Your task to perform on an android device: Open Chrome and go to the settings page Image 0: 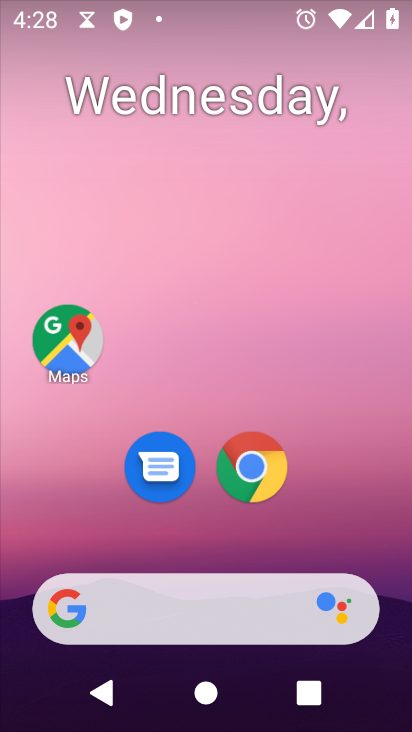
Step 0: drag from (354, 523) to (350, 97)
Your task to perform on an android device: Open Chrome and go to the settings page Image 1: 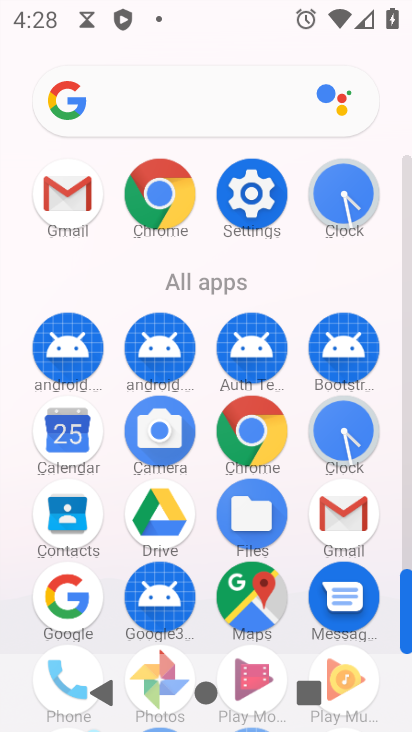
Step 1: click (179, 200)
Your task to perform on an android device: Open Chrome and go to the settings page Image 2: 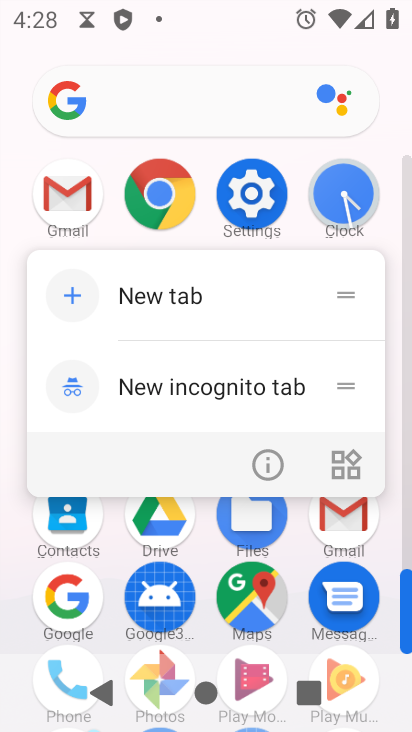
Step 2: click (179, 200)
Your task to perform on an android device: Open Chrome and go to the settings page Image 3: 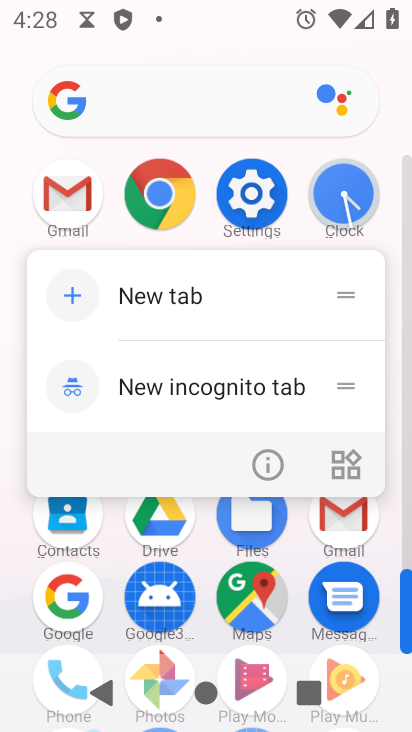
Step 3: click (179, 199)
Your task to perform on an android device: Open Chrome and go to the settings page Image 4: 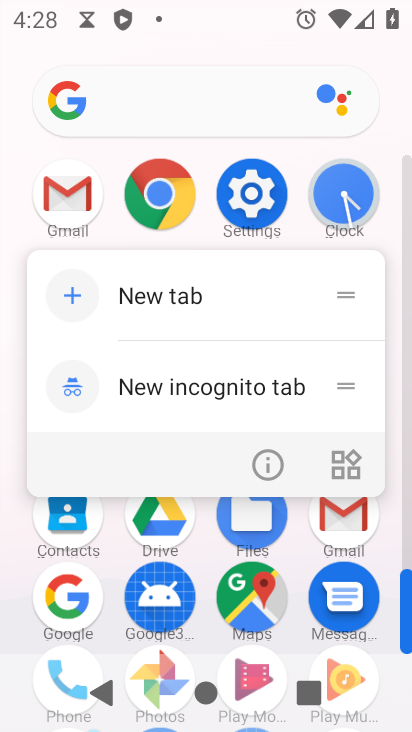
Step 4: click (179, 197)
Your task to perform on an android device: Open Chrome and go to the settings page Image 5: 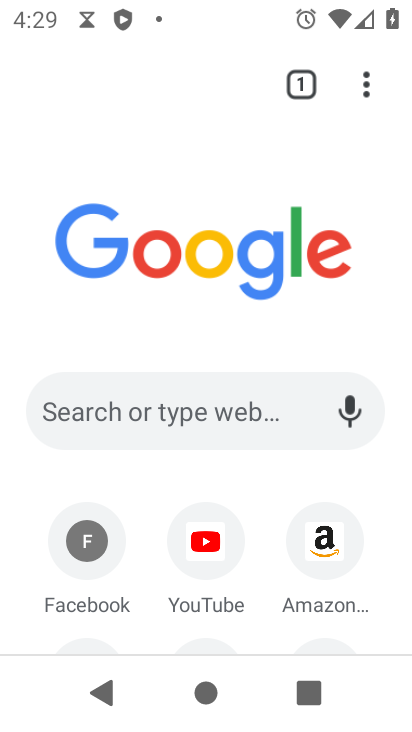
Step 5: task complete